Your task to perform on an android device: Open the map Image 0: 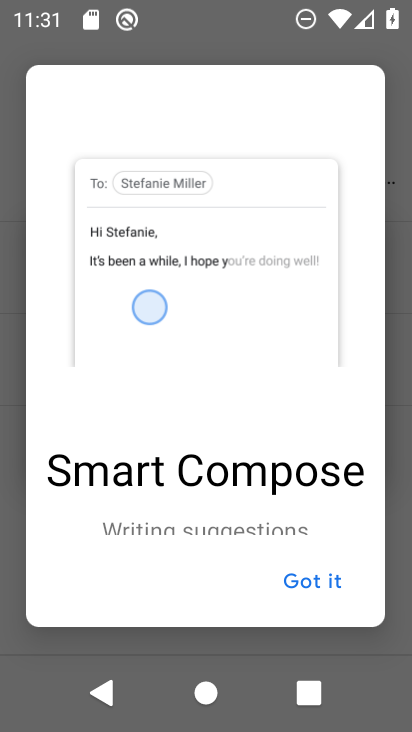
Step 0: press home button
Your task to perform on an android device: Open the map Image 1: 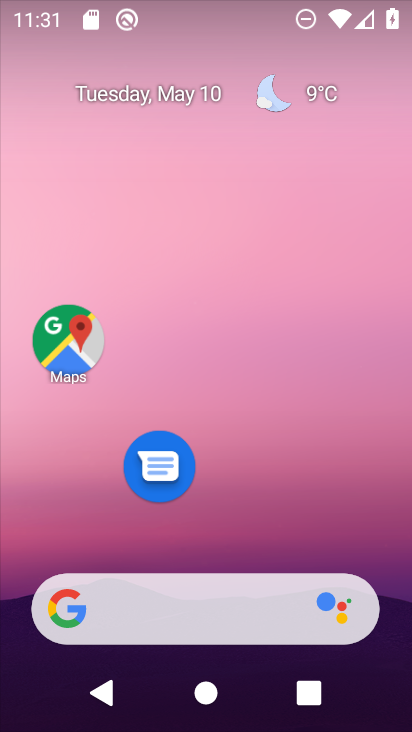
Step 1: drag from (264, 541) to (280, 85)
Your task to perform on an android device: Open the map Image 2: 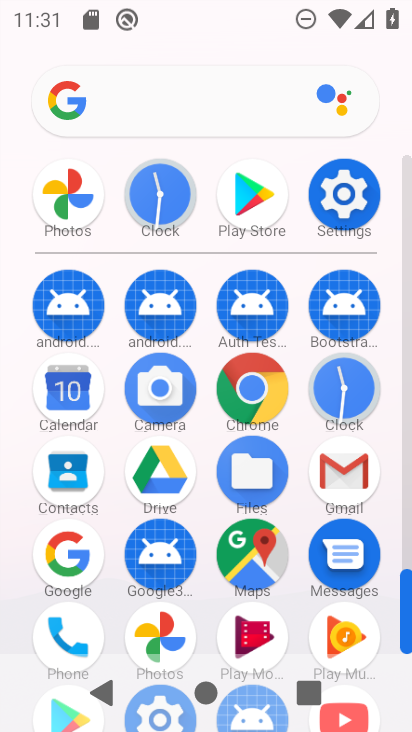
Step 2: click (242, 560)
Your task to perform on an android device: Open the map Image 3: 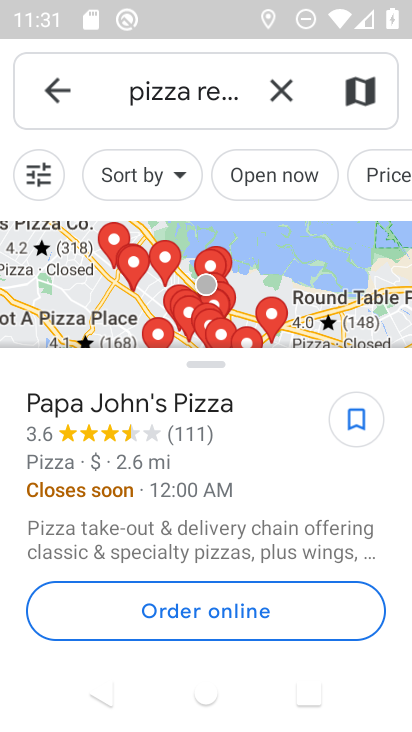
Step 3: click (59, 90)
Your task to perform on an android device: Open the map Image 4: 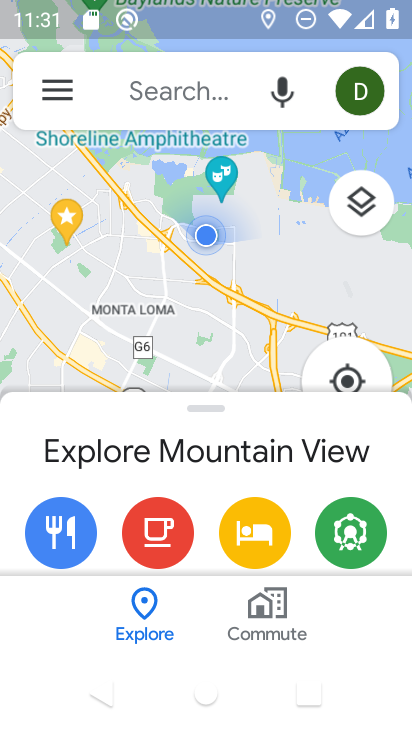
Step 4: task complete